Your task to perform on an android device: clear all cookies in the chrome app Image 0: 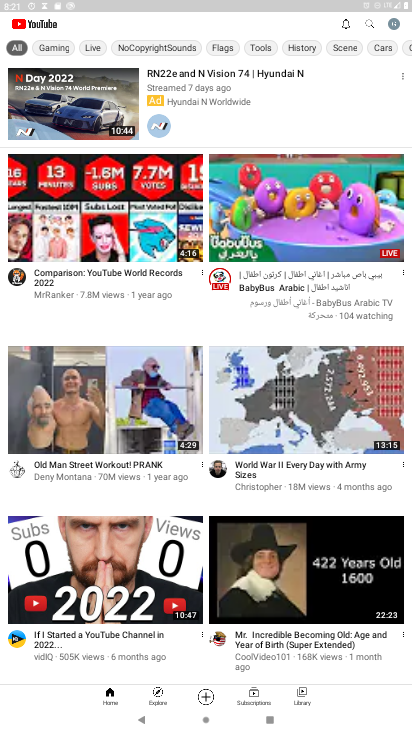
Step 0: press home button
Your task to perform on an android device: clear all cookies in the chrome app Image 1: 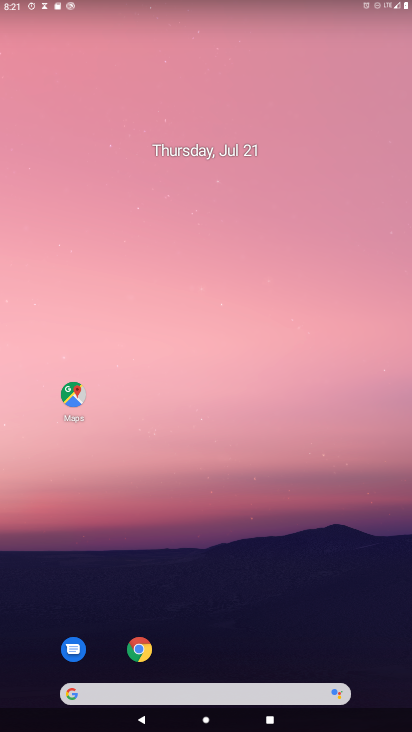
Step 1: drag from (359, 639) to (104, 62)
Your task to perform on an android device: clear all cookies in the chrome app Image 2: 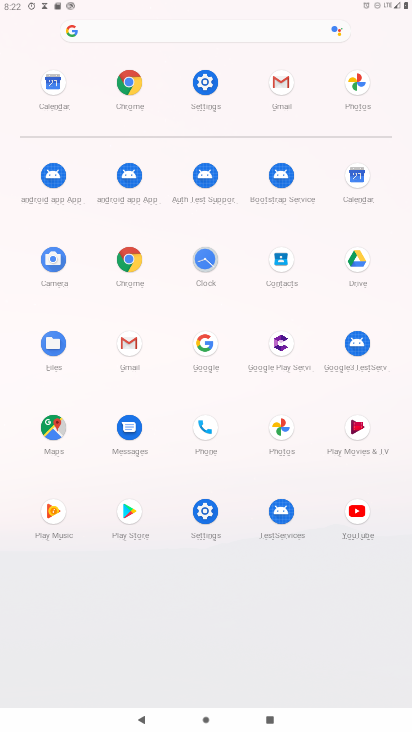
Step 2: click (126, 263)
Your task to perform on an android device: clear all cookies in the chrome app Image 3: 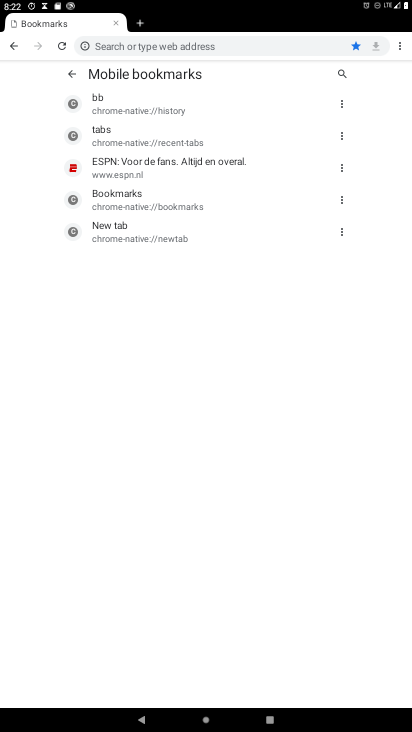
Step 3: click (400, 44)
Your task to perform on an android device: clear all cookies in the chrome app Image 4: 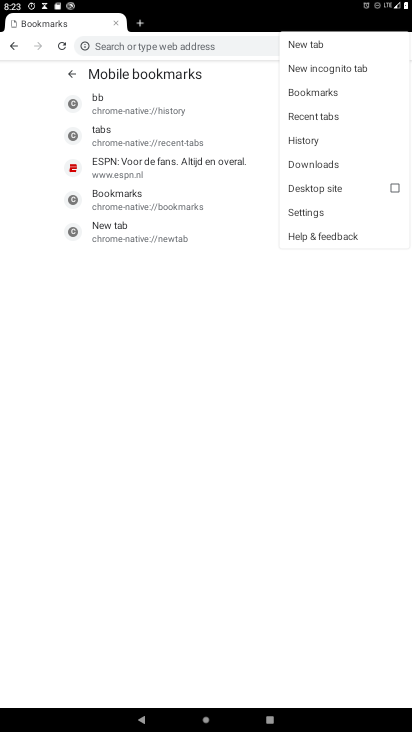
Step 4: click (318, 143)
Your task to perform on an android device: clear all cookies in the chrome app Image 5: 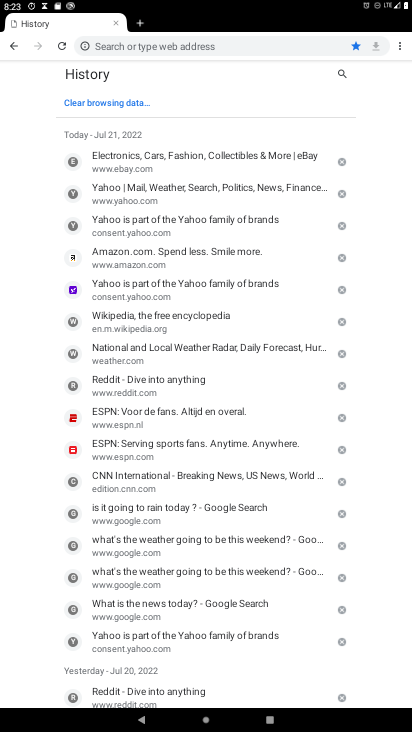
Step 5: click (104, 100)
Your task to perform on an android device: clear all cookies in the chrome app Image 6: 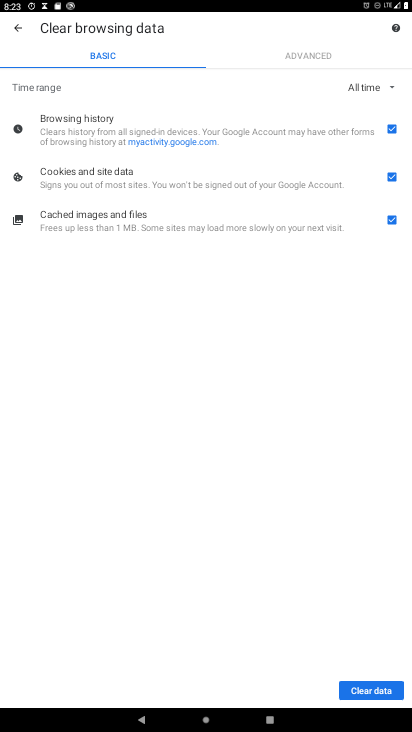
Step 6: click (369, 694)
Your task to perform on an android device: clear all cookies in the chrome app Image 7: 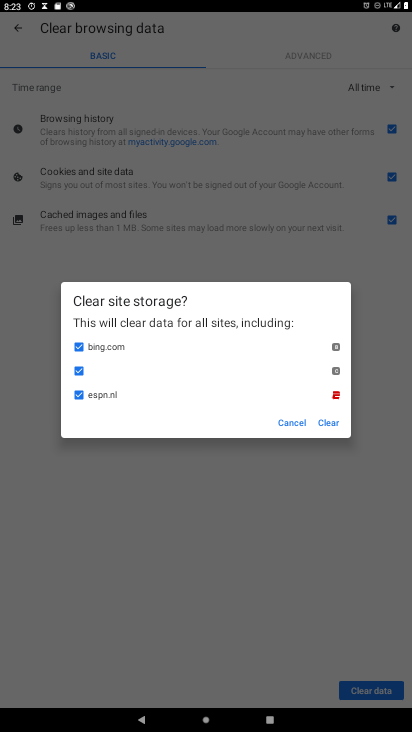
Step 7: click (327, 420)
Your task to perform on an android device: clear all cookies in the chrome app Image 8: 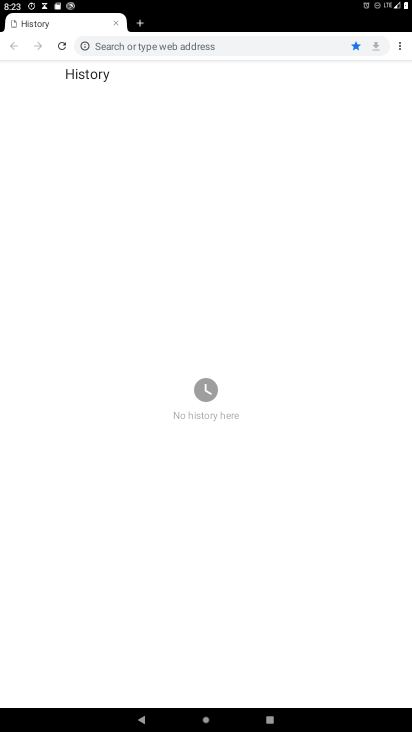
Step 8: task complete